Your task to perform on an android device: change your default location settings in chrome Image 0: 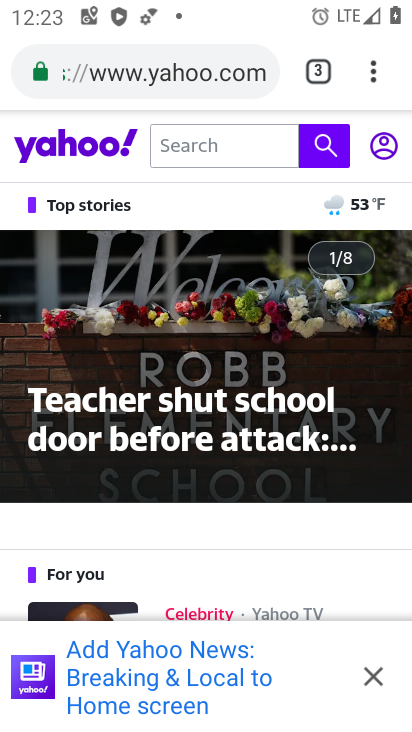
Step 0: drag from (368, 75) to (121, 562)
Your task to perform on an android device: change your default location settings in chrome Image 1: 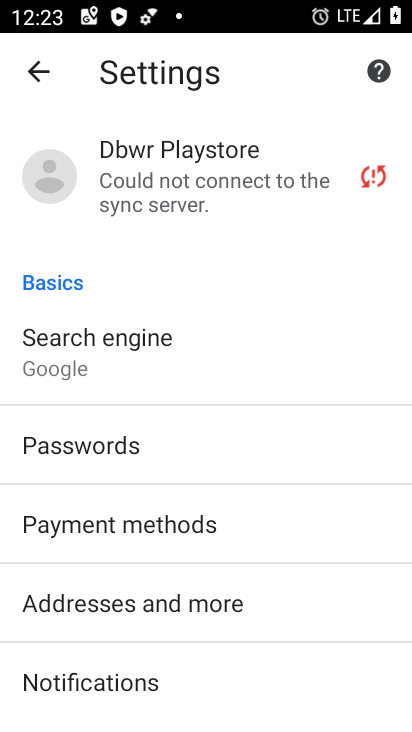
Step 1: drag from (175, 664) to (194, 362)
Your task to perform on an android device: change your default location settings in chrome Image 2: 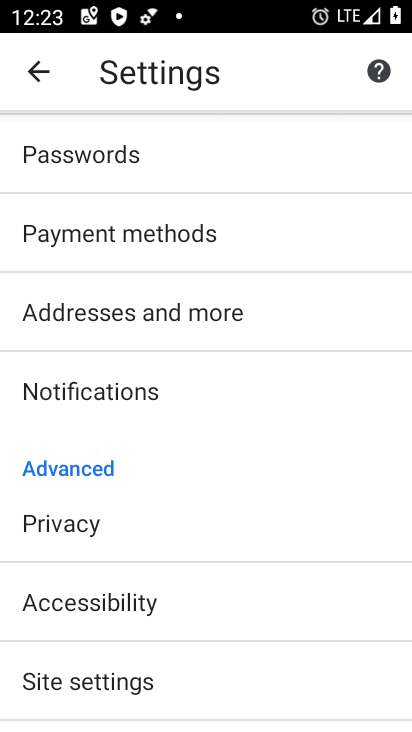
Step 2: drag from (148, 684) to (168, 447)
Your task to perform on an android device: change your default location settings in chrome Image 3: 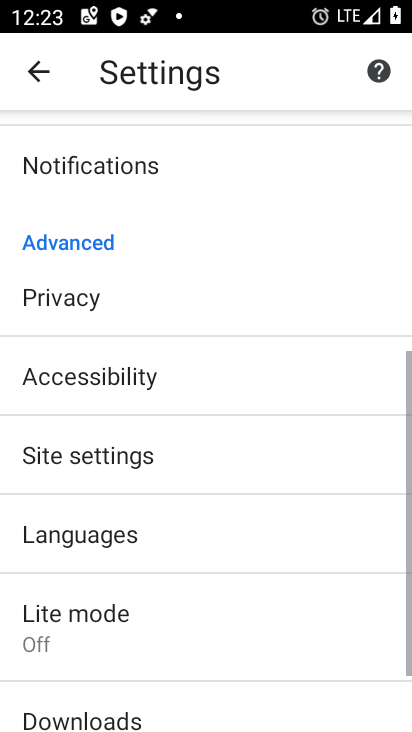
Step 3: drag from (146, 649) to (179, 431)
Your task to perform on an android device: change your default location settings in chrome Image 4: 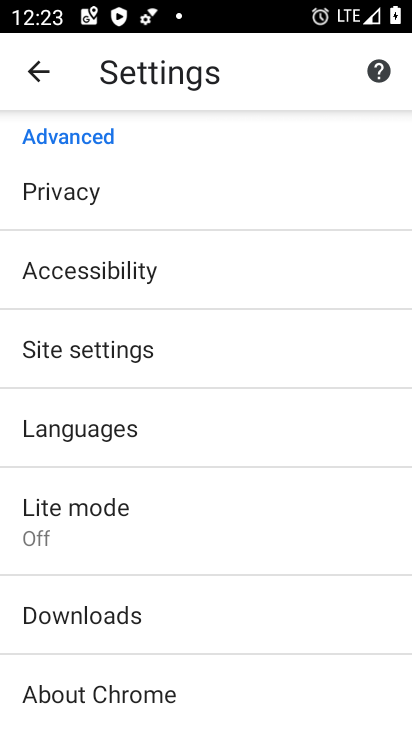
Step 4: click (169, 359)
Your task to perform on an android device: change your default location settings in chrome Image 5: 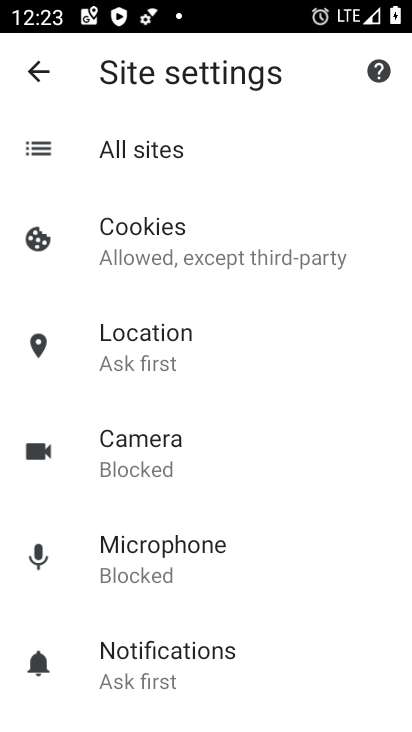
Step 5: click (186, 367)
Your task to perform on an android device: change your default location settings in chrome Image 6: 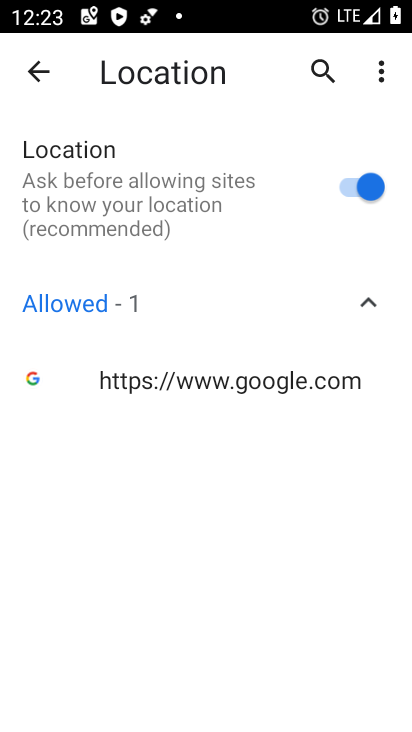
Step 6: click (342, 189)
Your task to perform on an android device: change your default location settings in chrome Image 7: 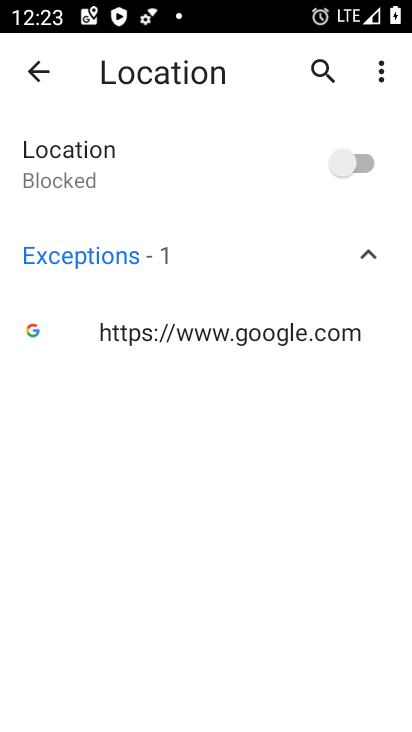
Step 7: task complete